Your task to perform on an android device: move a message to another label in the gmail app Image 0: 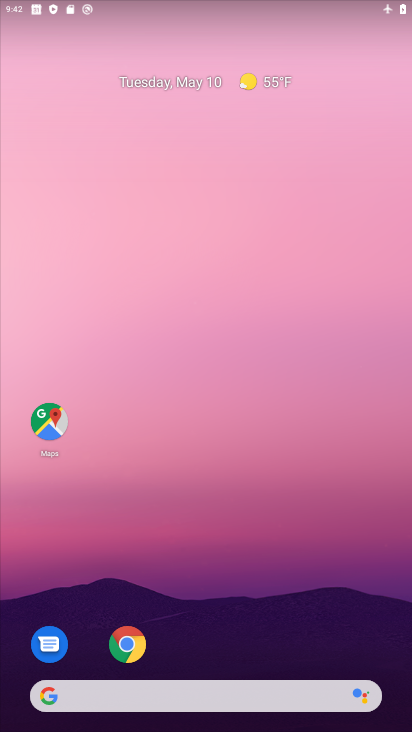
Step 0: drag from (269, 596) to (292, 245)
Your task to perform on an android device: move a message to another label in the gmail app Image 1: 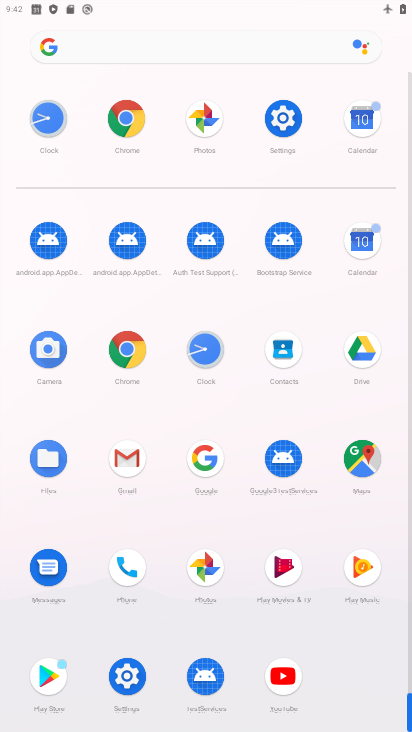
Step 1: click (132, 461)
Your task to perform on an android device: move a message to another label in the gmail app Image 2: 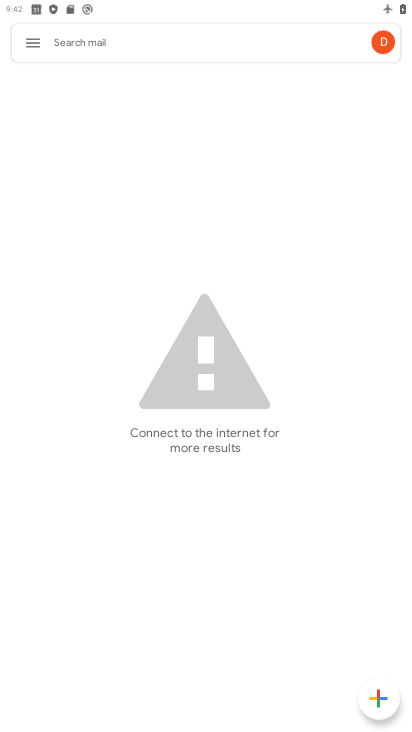
Step 2: click (29, 43)
Your task to perform on an android device: move a message to another label in the gmail app Image 3: 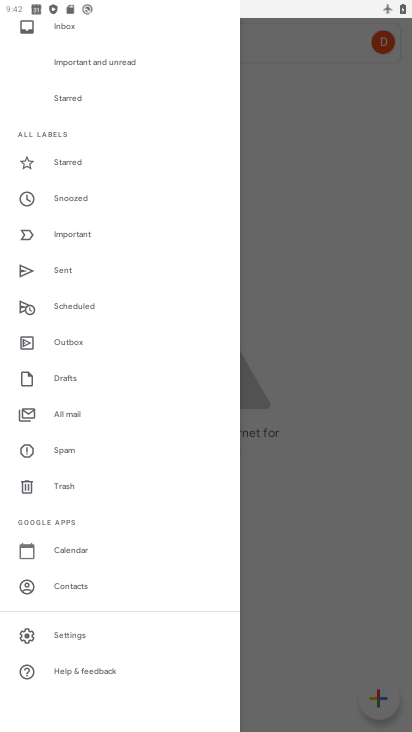
Step 3: click (89, 423)
Your task to perform on an android device: move a message to another label in the gmail app Image 4: 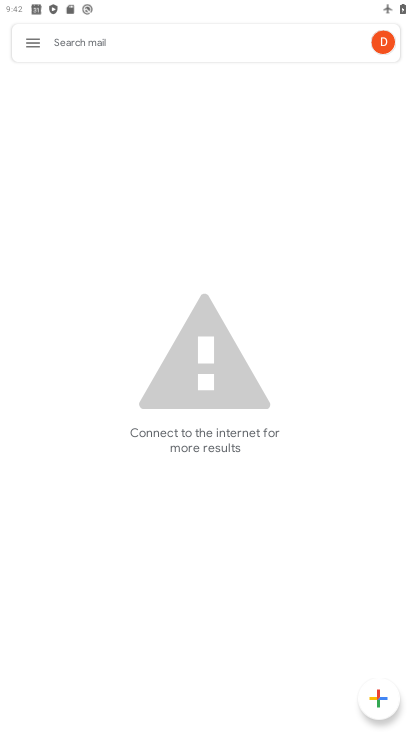
Step 4: task complete